Your task to perform on an android device: open app "Google Home" Image 0: 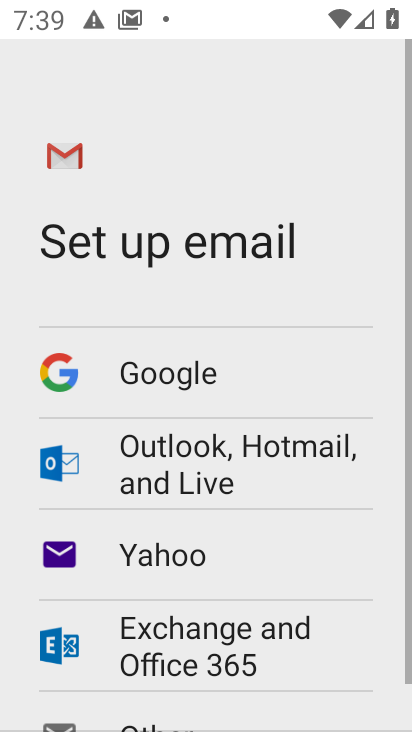
Step 0: press home button
Your task to perform on an android device: open app "Google Home" Image 1: 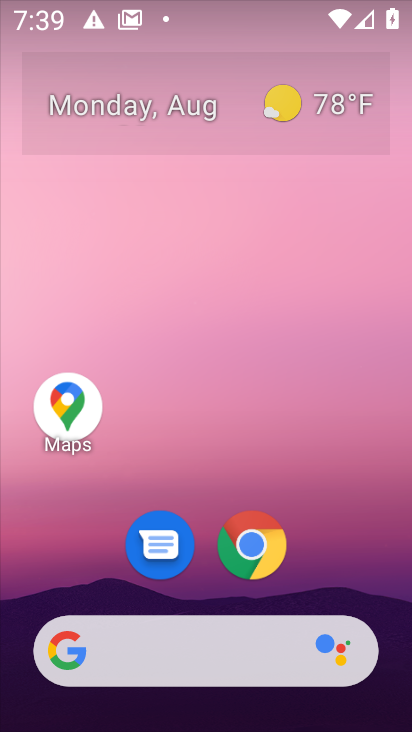
Step 1: drag from (360, 574) to (379, 76)
Your task to perform on an android device: open app "Google Home" Image 2: 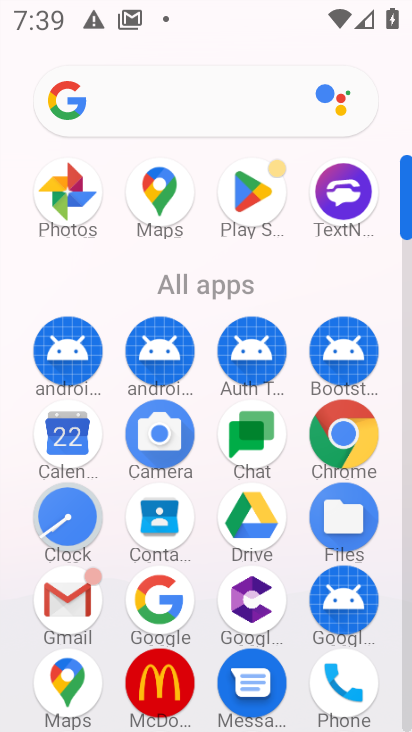
Step 2: click (251, 197)
Your task to perform on an android device: open app "Google Home" Image 3: 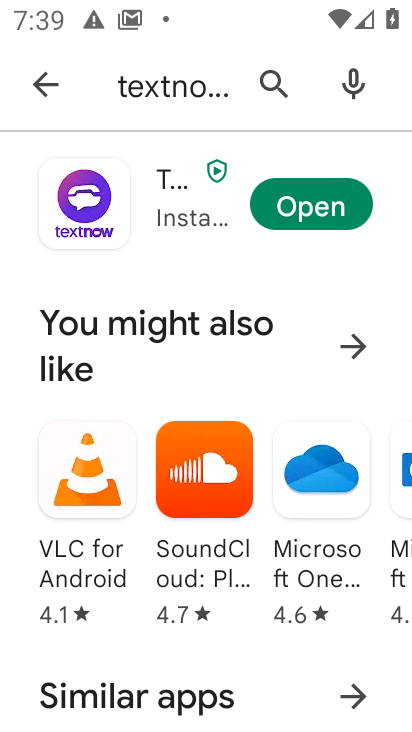
Step 3: press back button
Your task to perform on an android device: open app "Google Home" Image 4: 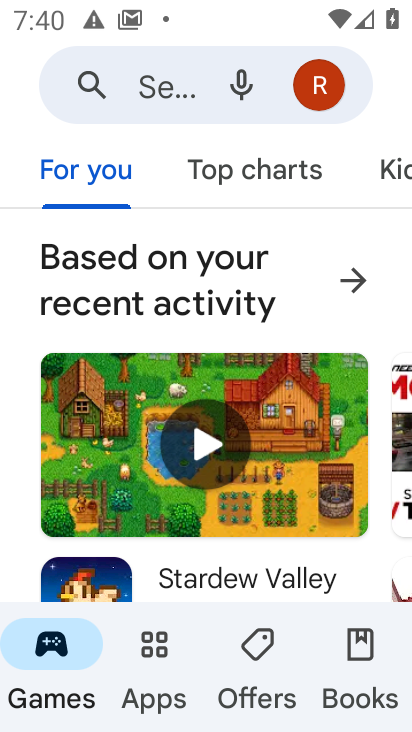
Step 4: click (152, 62)
Your task to perform on an android device: open app "Google Home" Image 5: 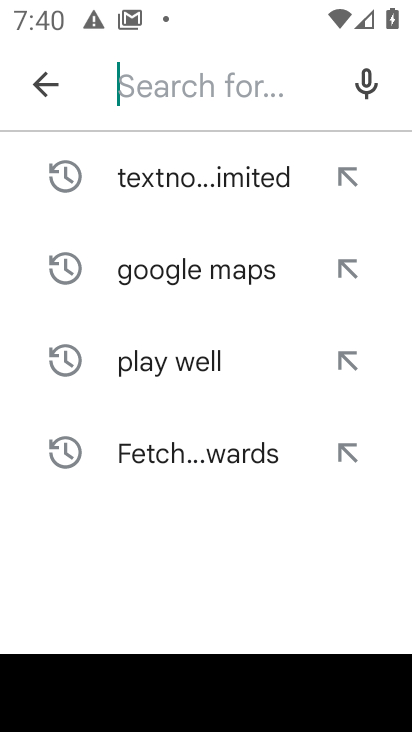
Step 5: type "google home "
Your task to perform on an android device: open app "Google Home" Image 6: 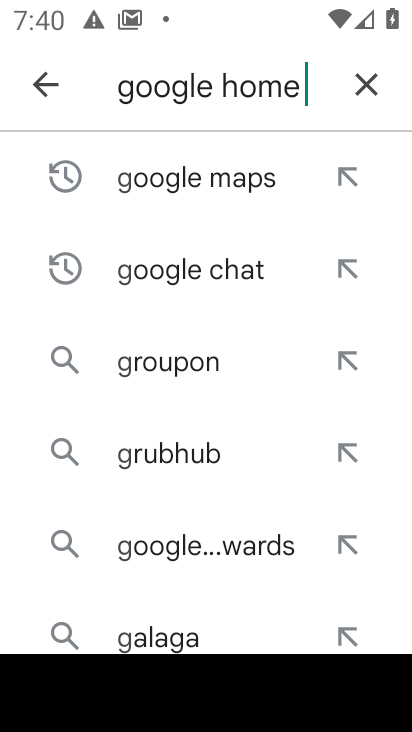
Step 6: press enter
Your task to perform on an android device: open app "Google Home" Image 7: 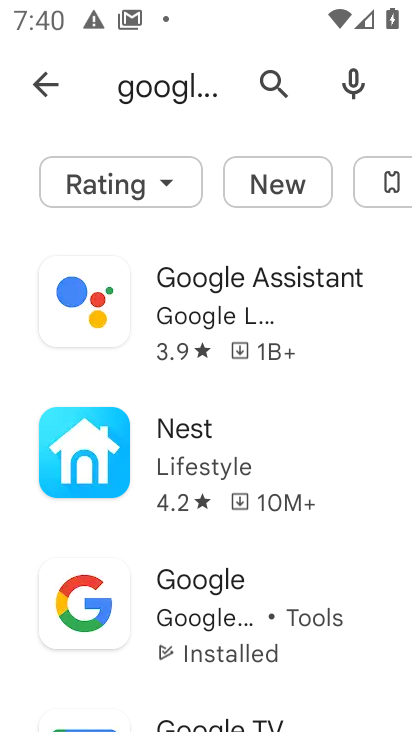
Step 7: task complete